Your task to perform on an android device: Go to Google maps Image 0: 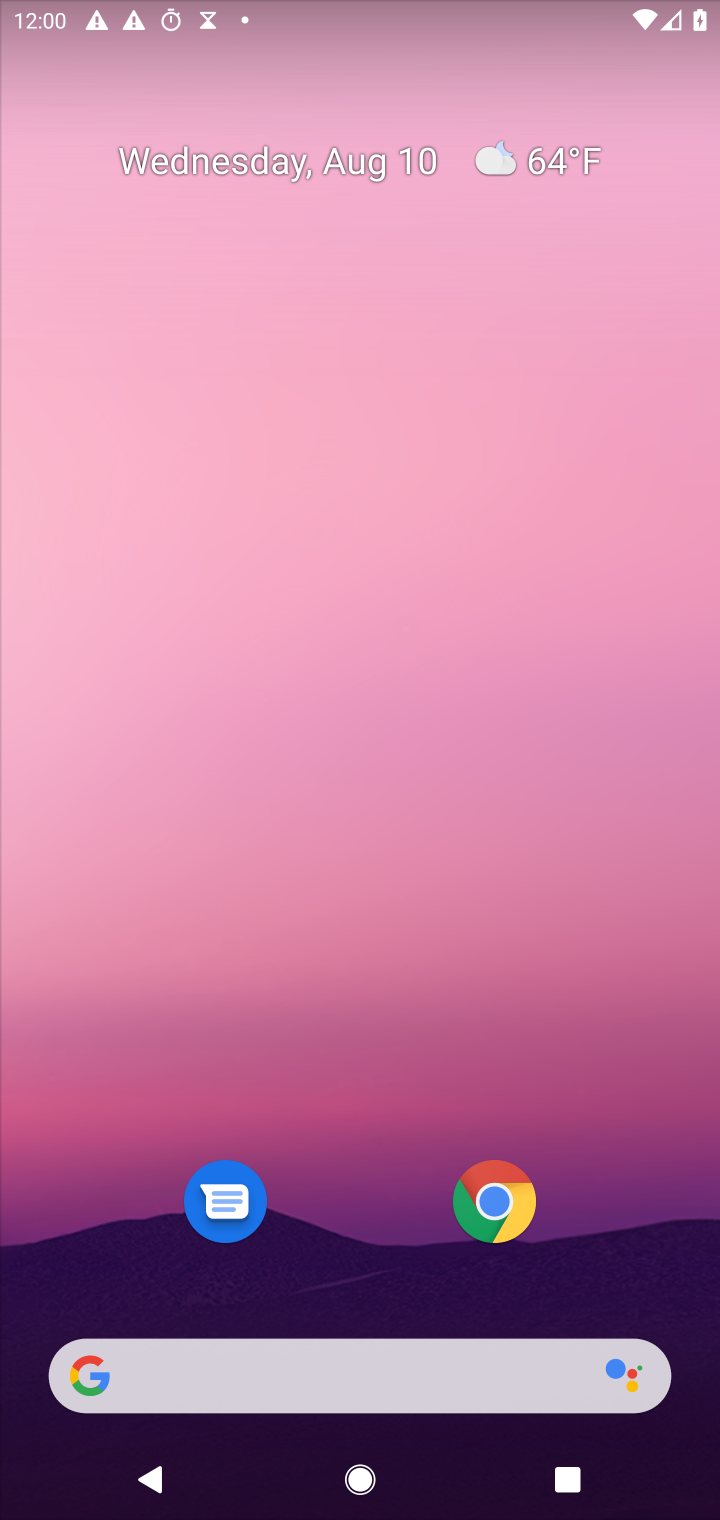
Step 0: press home button
Your task to perform on an android device: Go to Google maps Image 1: 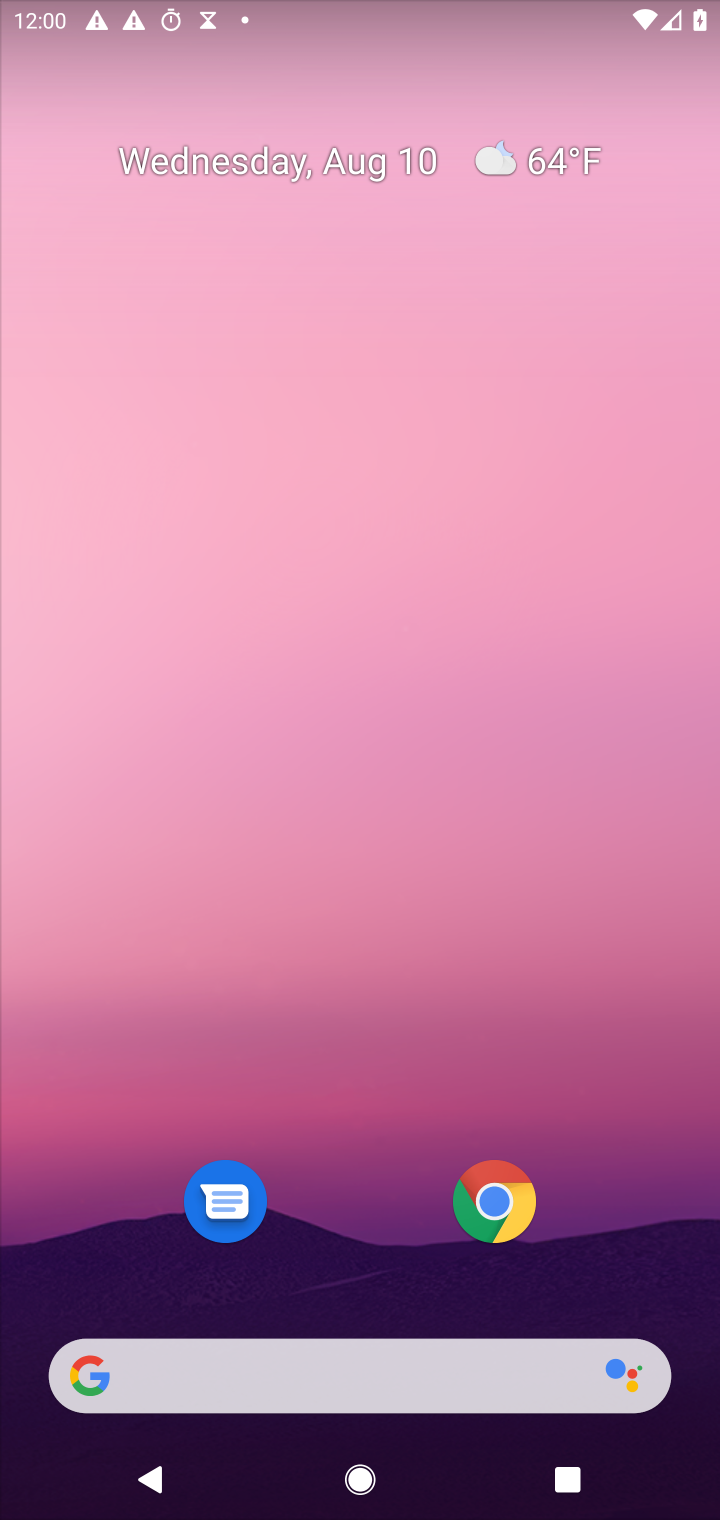
Step 1: drag from (385, 1253) to (416, 27)
Your task to perform on an android device: Go to Google maps Image 2: 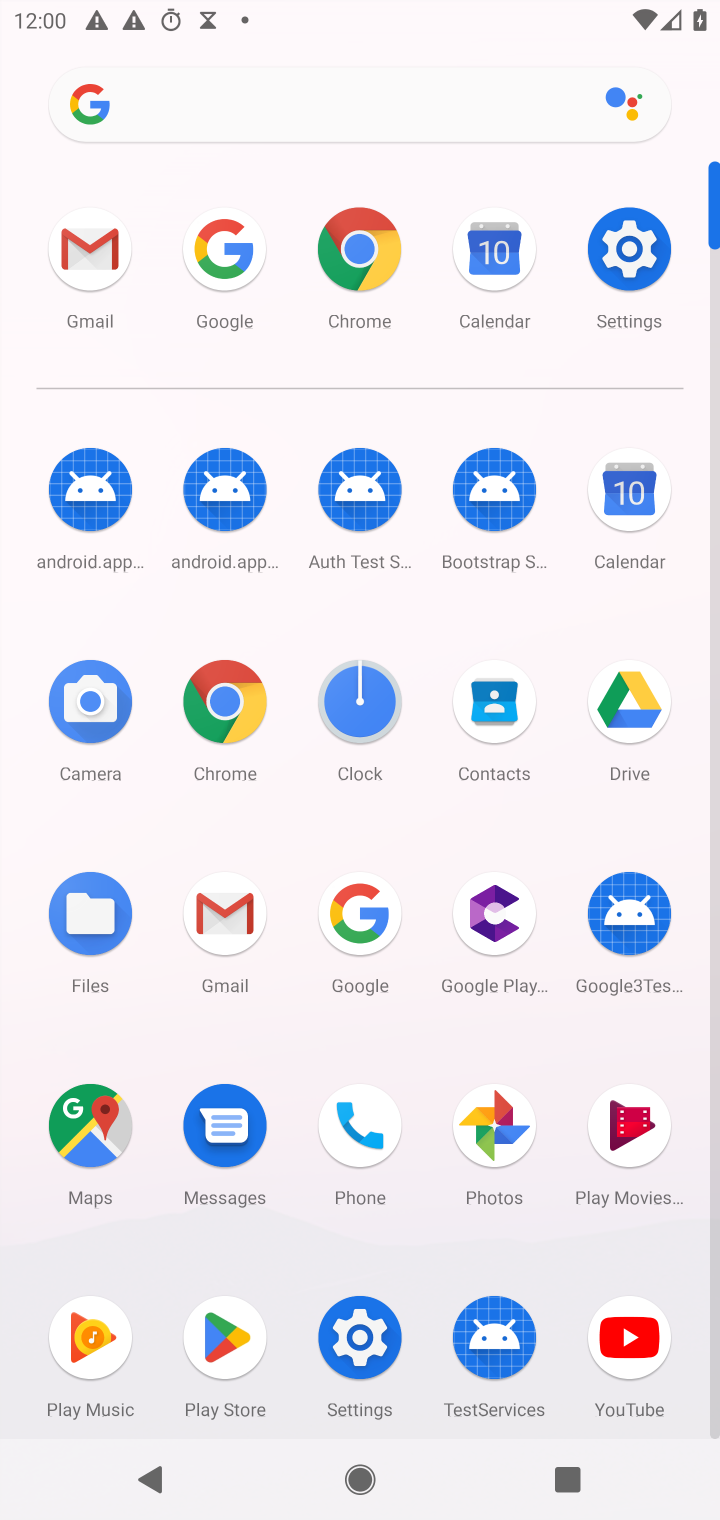
Step 2: click (84, 1146)
Your task to perform on an android device: Go to Google maps Image 3: 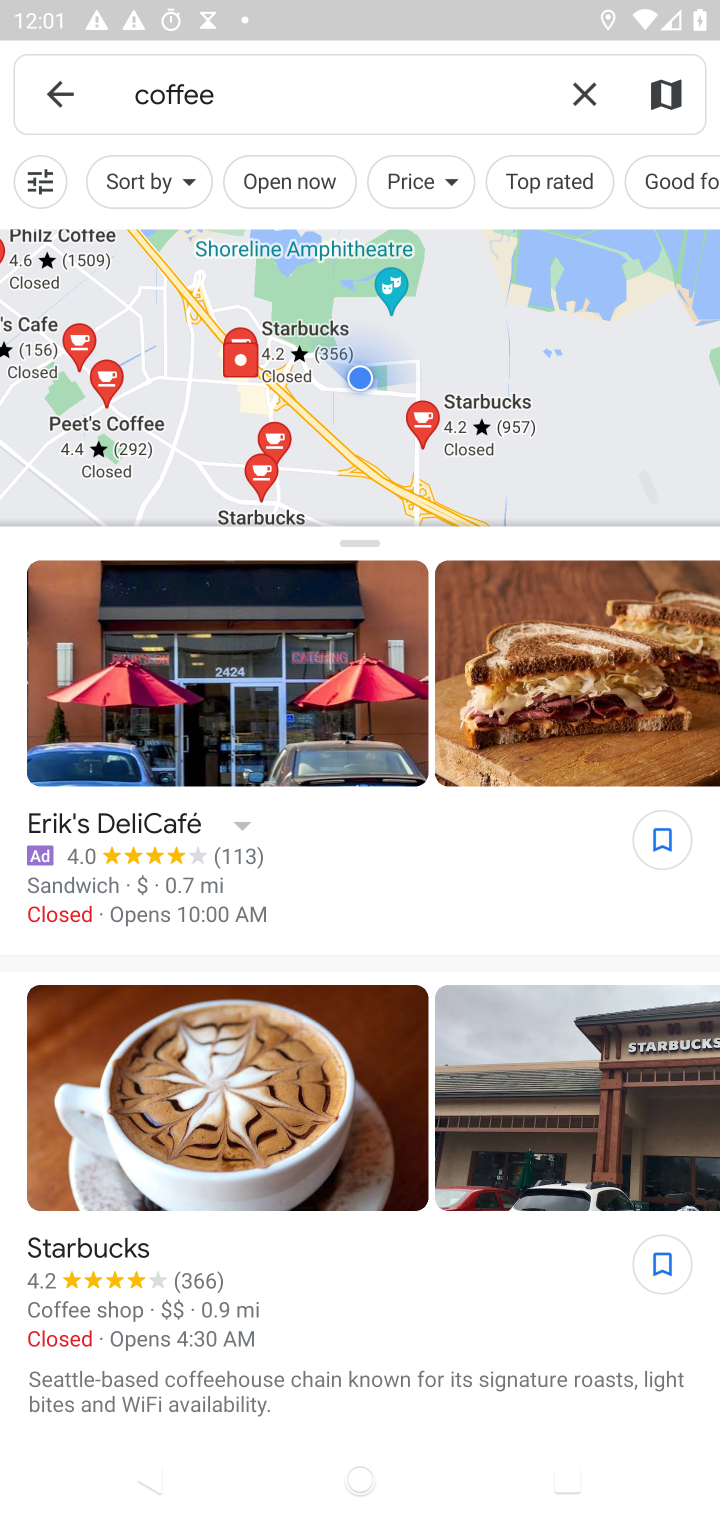
Step 3: click (66, 97)
Your task to perform on an android device: Go to Google maps Image 4: 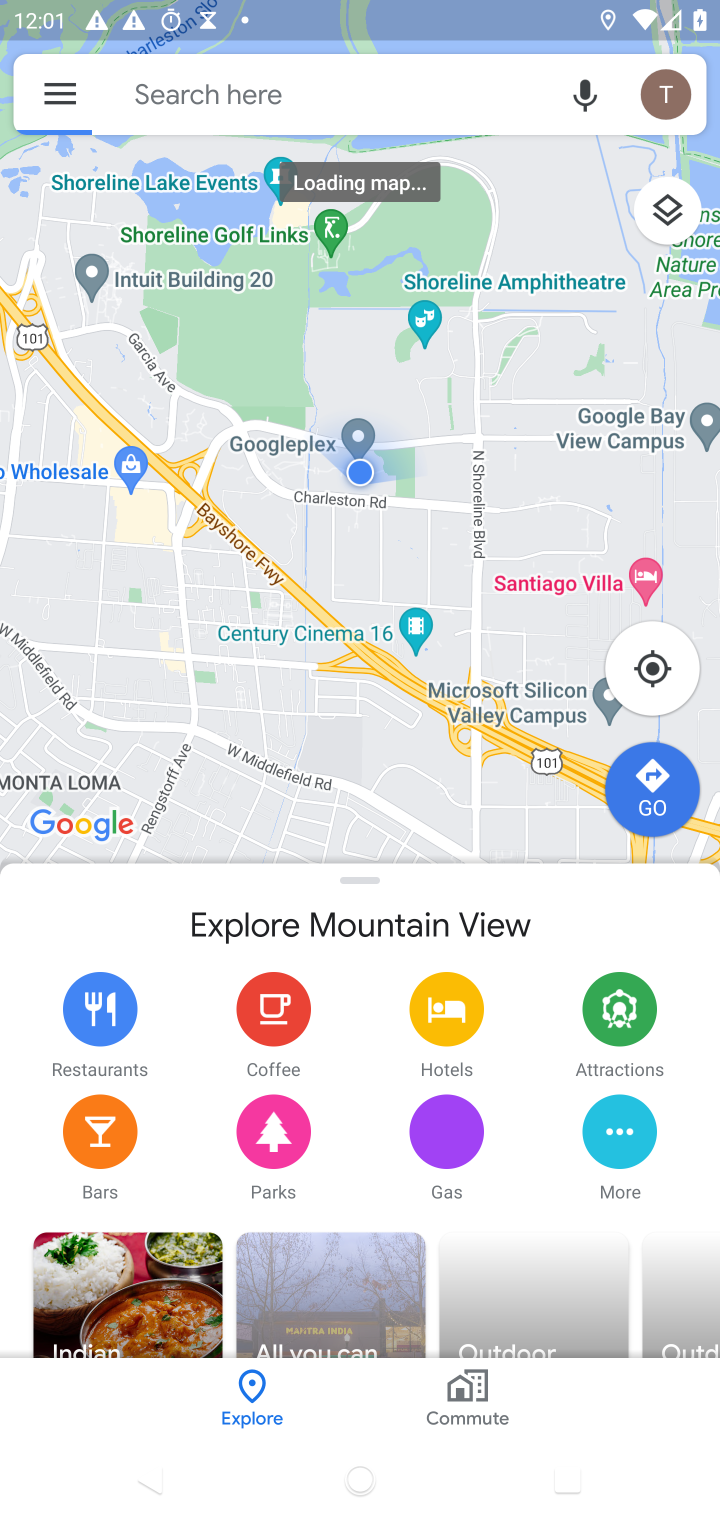
Step 4: task complete